Your task to perform on an android device: Go to Reddit.com Image 0: 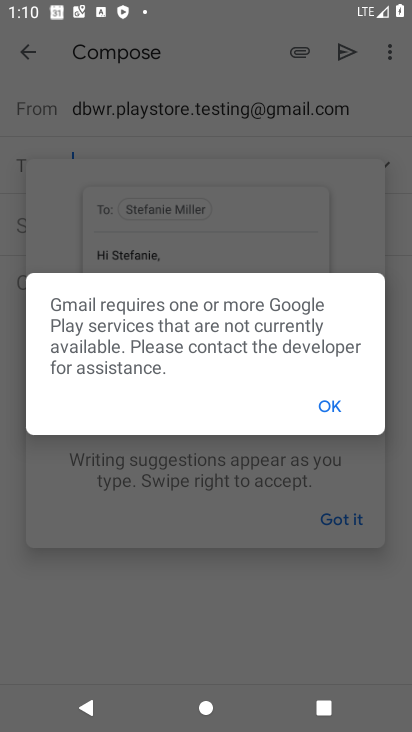
Step 0: press home button
Your task to perform on an android device: Go to Reddit.com Image 1: 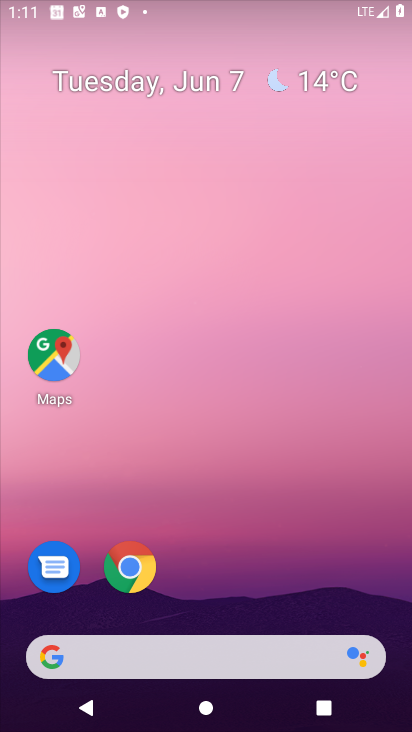
Step 1: drag from (234, 654) to (317, 4)
Your task to perform on an android device: Go to Reddit.com Image 2: 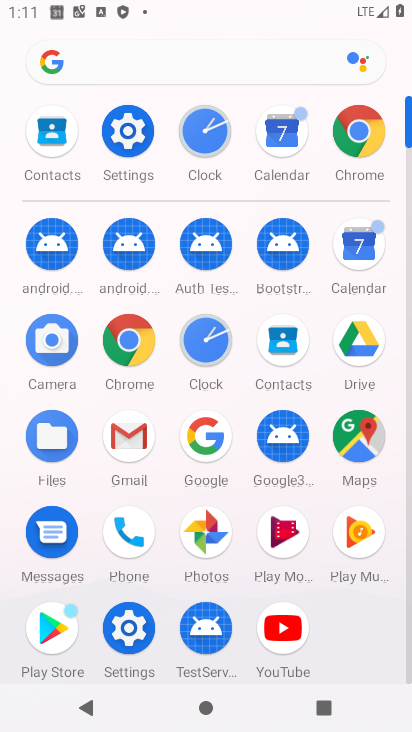
Step 2: click (141, 339)
Your task to perform on an android device: Go to Reddit.com Image 3: 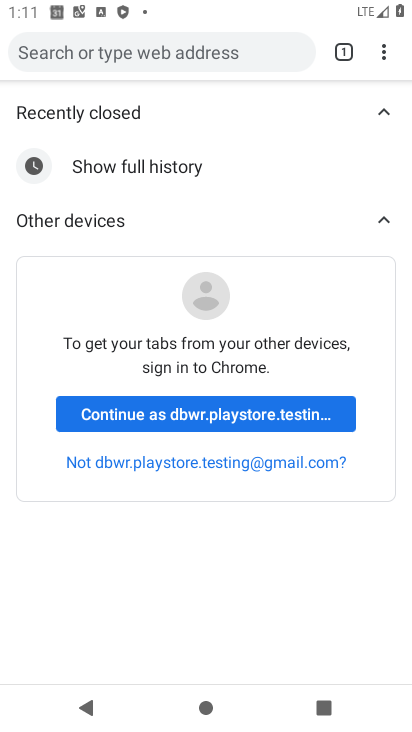
Step 3: click (243, 62)
Your task to perform on an android device: Go to Reddit.com Image 4: 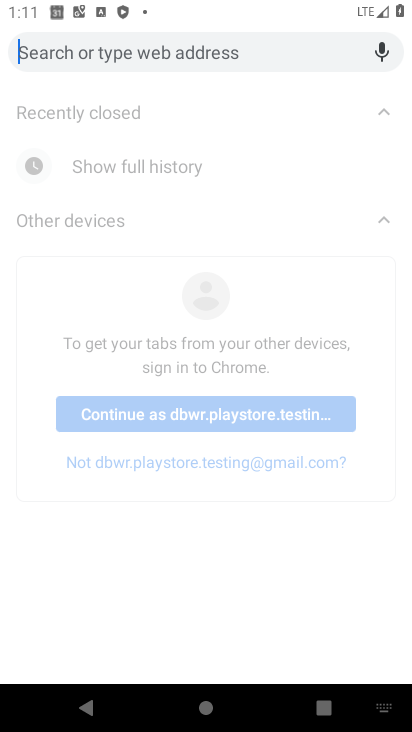
Step 4: type "reddit.com"
Your task to perform on an android device: Go to Reddit.com Image 5: 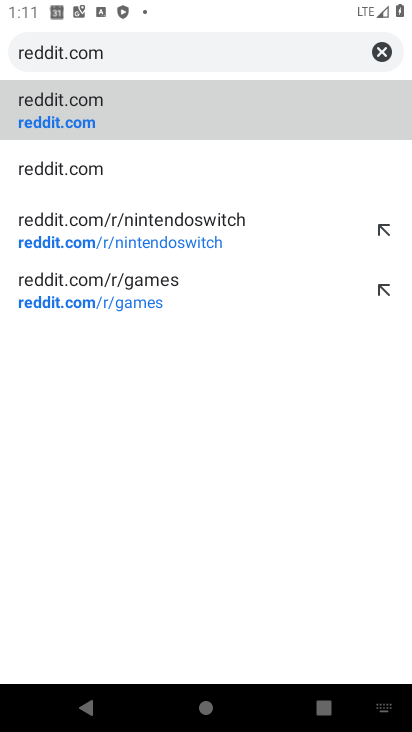
Step 5: click (86, 100)
Your task to perform on an android device: Go to Reddit.com Image 6: 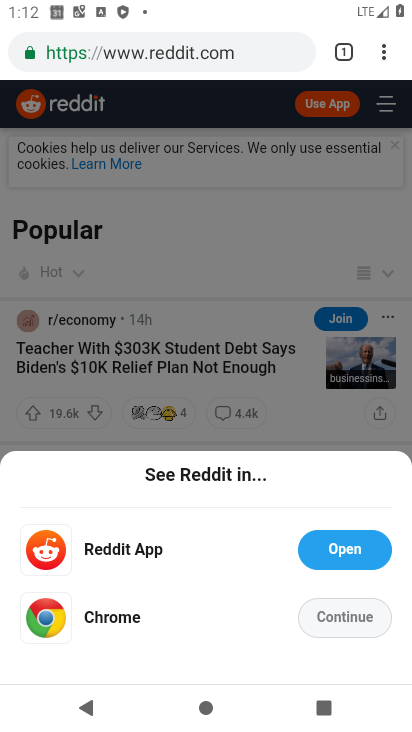
Step 6: task complete